Your task to perform on an android device: turn off picture-in-picture Image 0: 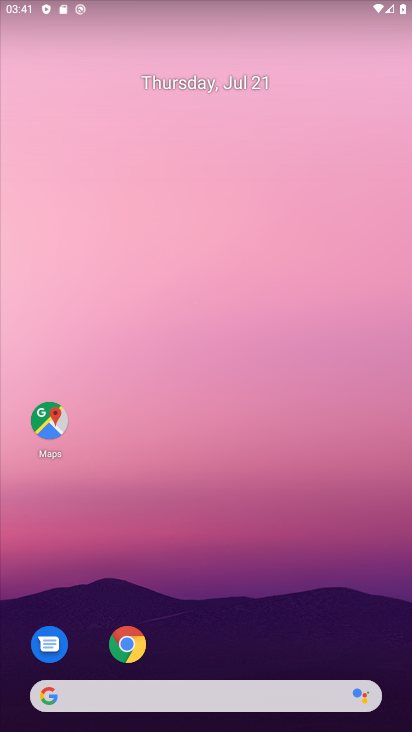
Step 0: click (126, 649)
Your task to perform on an android device: turn off picture-in-picture Image 1: 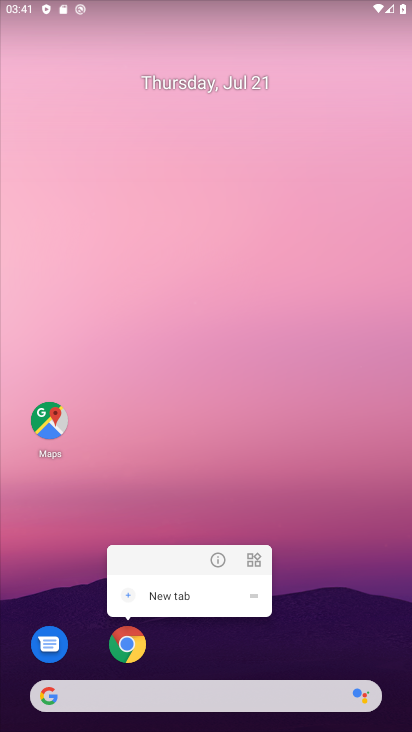
Step 1: click (220, 562)
Your task to perform on an android device: turn off picture-in-picture Image 2: 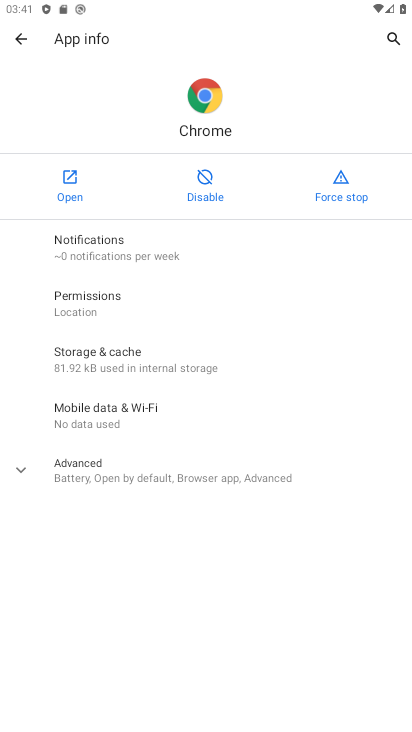
Step 2: click (19, 477)
Your task to perform on an android device: turn off picture-in-picture Image 3: 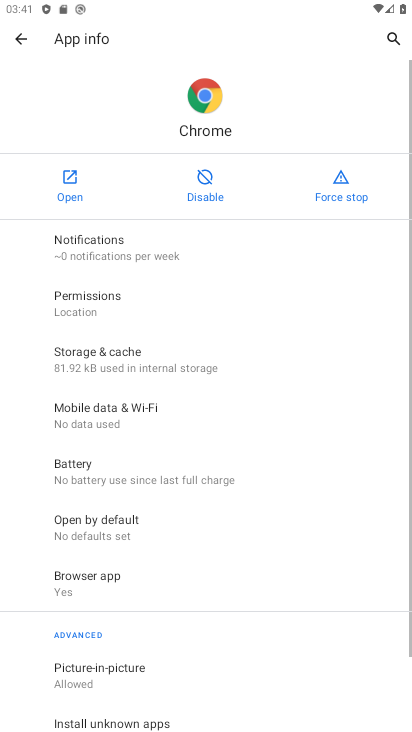
Step 3: drag from (157, 570) to (163, 349)
Your task to perform on an android device: turn off picture-in-picture Image 4: 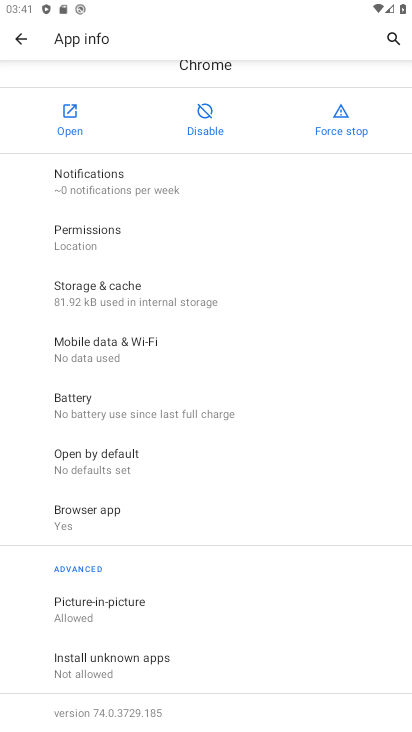
Step 4: click (100, 604)
Your task to perform on an android device: turn off picture-in-picture Image 5: 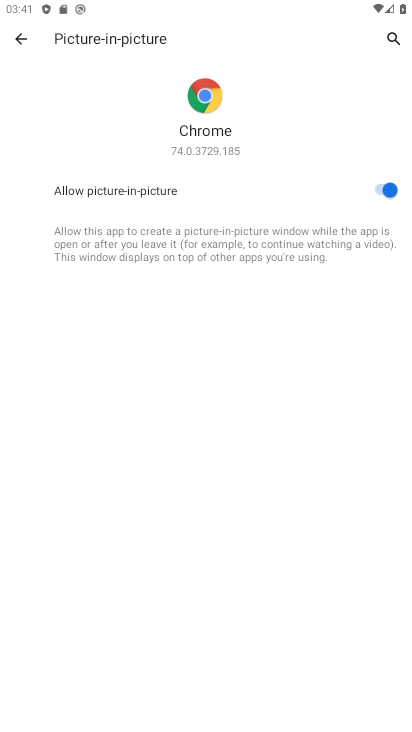
Step 5: click (384, 185)
Your task to perform on an android device: turn off picture-in-picture Image 6: 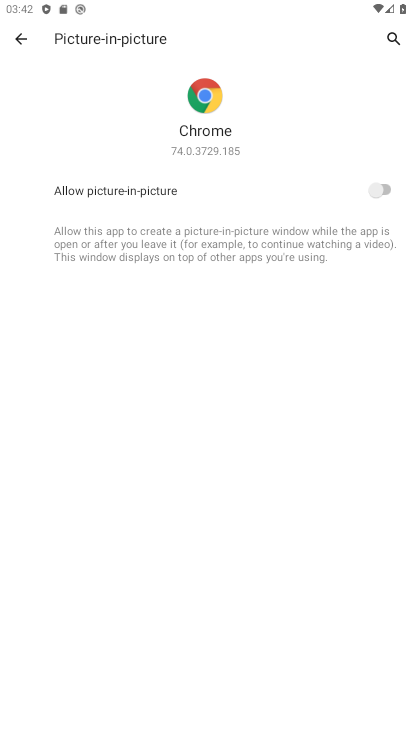
Step 6: task complete